Your task to perform on an android device: Is it going to rain today? Image 0: 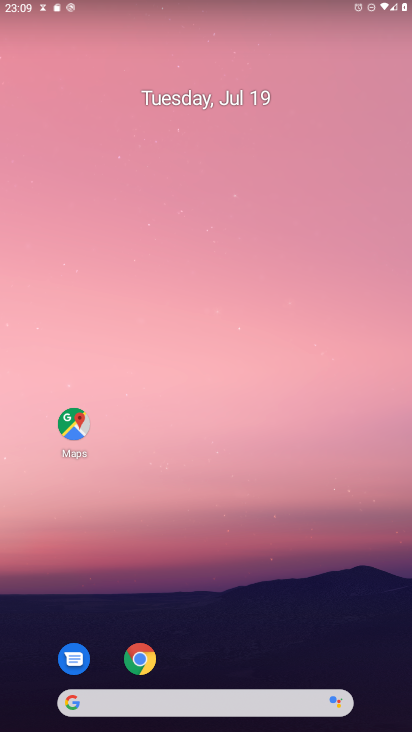
Step 0: drag from (237, 623) to (244, 85)
Your task to perform on an android device: Is it going to rain today? Image 1: 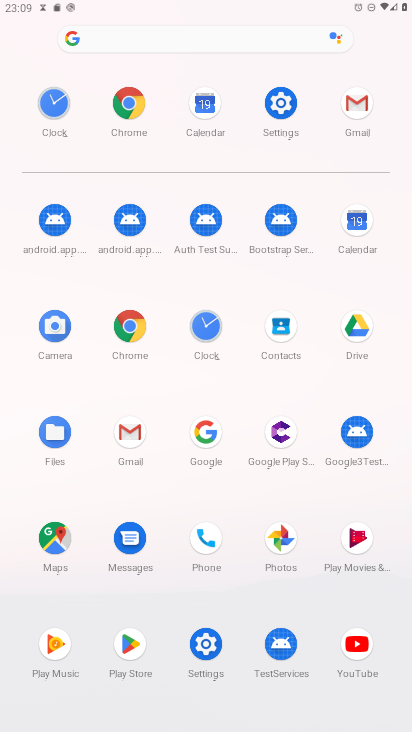
Step 1: click (134, 98)
Your task to perform on an android device: Is it going to rain today? Image 2: 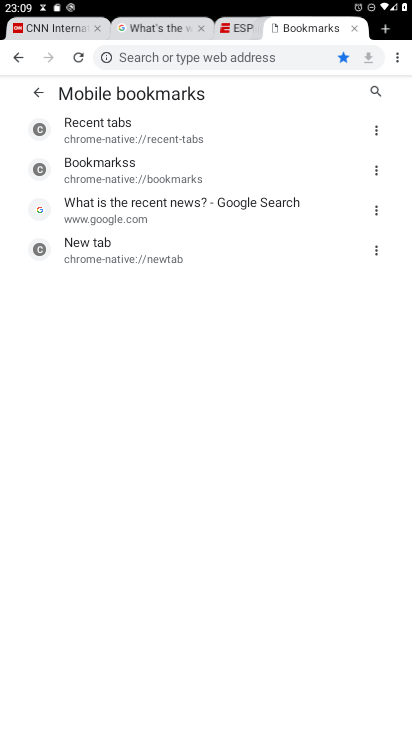
Step 2: click (358, 26)
Your task to perform on an android device: Is it going to rain today? Image 3: 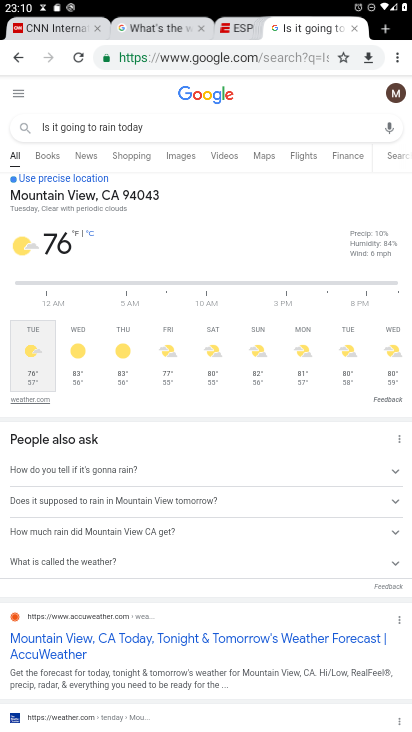
Step 3: task complete